Your task to perform on an android device: empty trash in the gmail app Image 0: 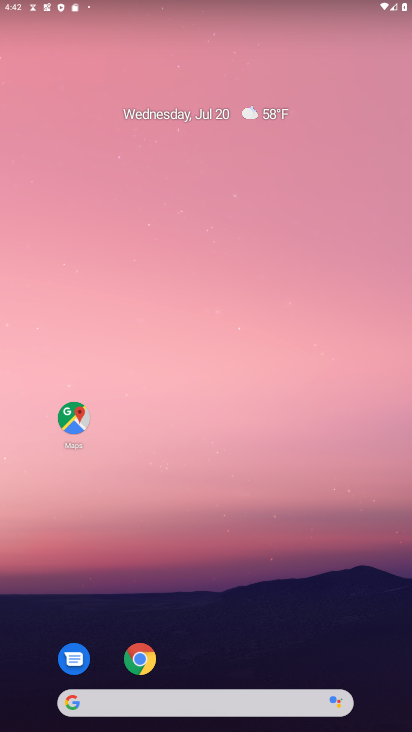
Step 0: drag from (283, 690) to (375, 40)
Your task to perform on an android device: empty trash in the gmail app Image 1: 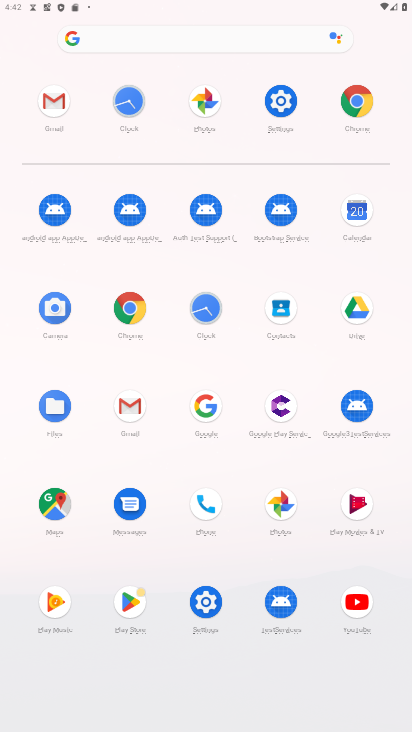
Step 1: click (132, 397)
Your task to perform on an android device: empty trash in the gmail app Image 2: 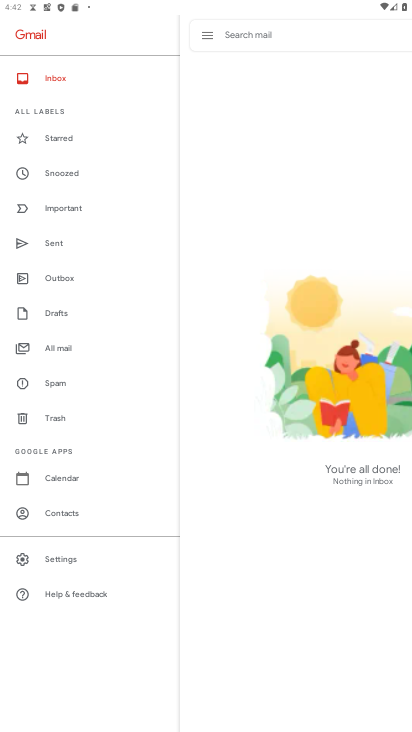
Step 2: click (75, 418)
Your task to perform on an android device: empty trash in the gmail app Image 3: 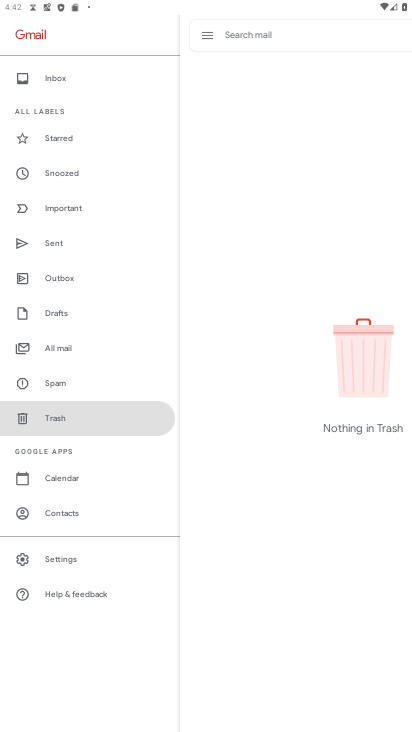
Step 3: task complete